Your task to perform on an android device: turn on the 24-hour format for clock Image 0: 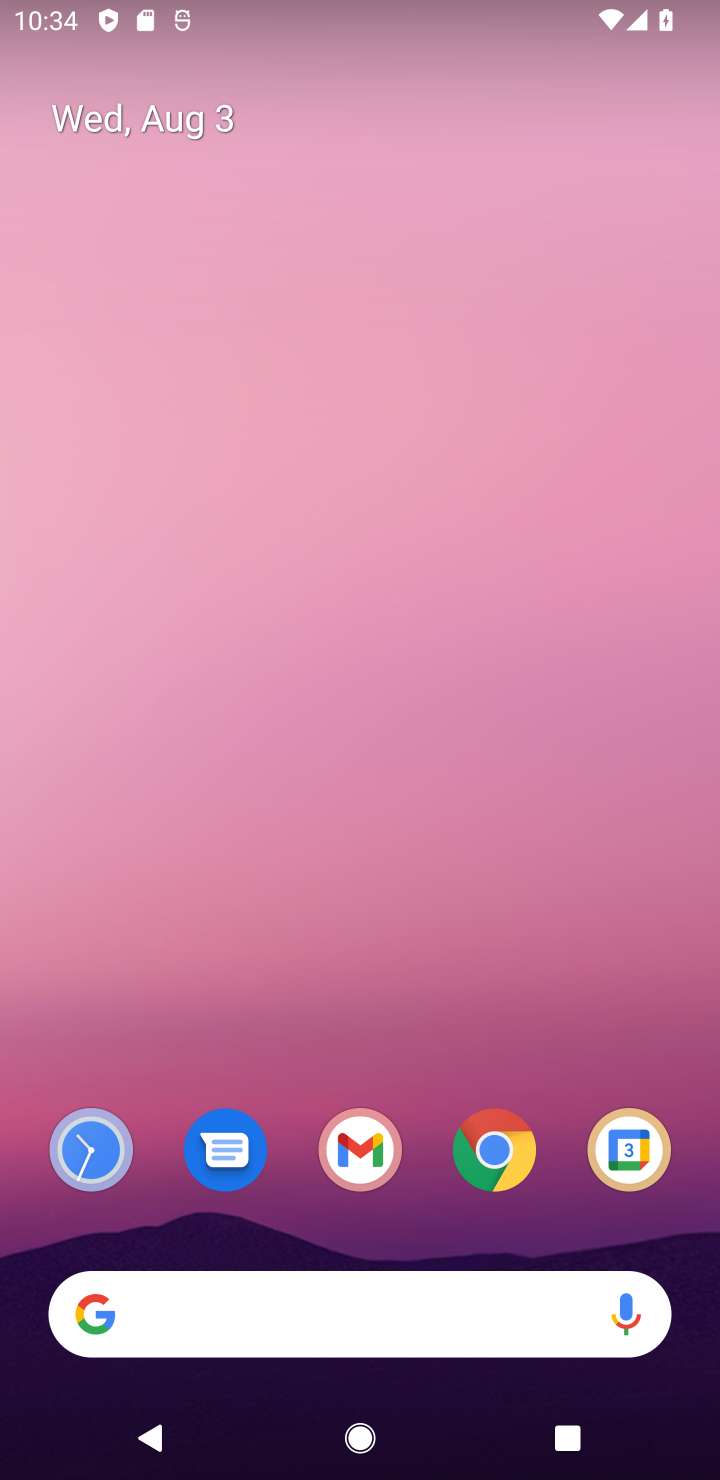
Step 0: press home button
Your task to perform on an android device: turn on the 24-hour format for clock Image 1: 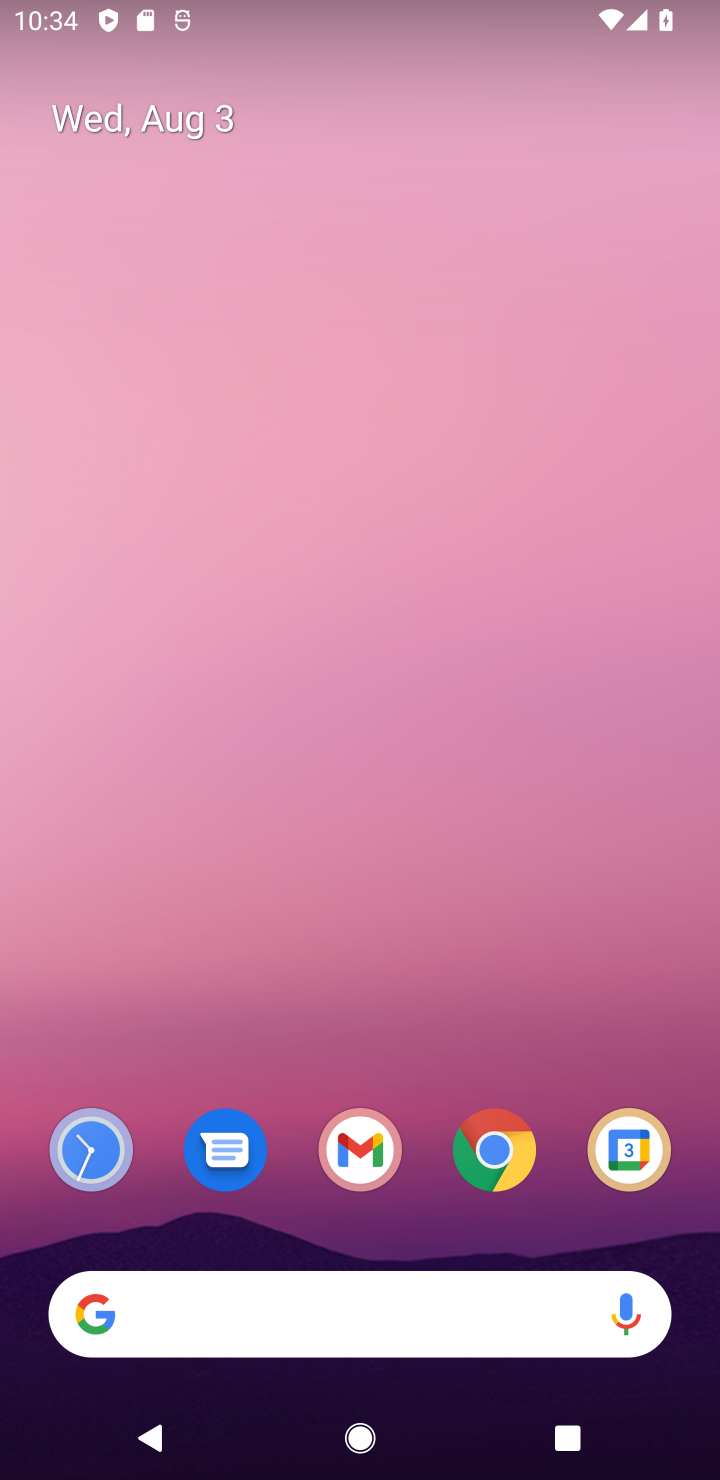
Step 1: drag from (536, 1039) to (567, 232)
Your task to perform on an android device: turn on the 24-hour format for clock Image 2: 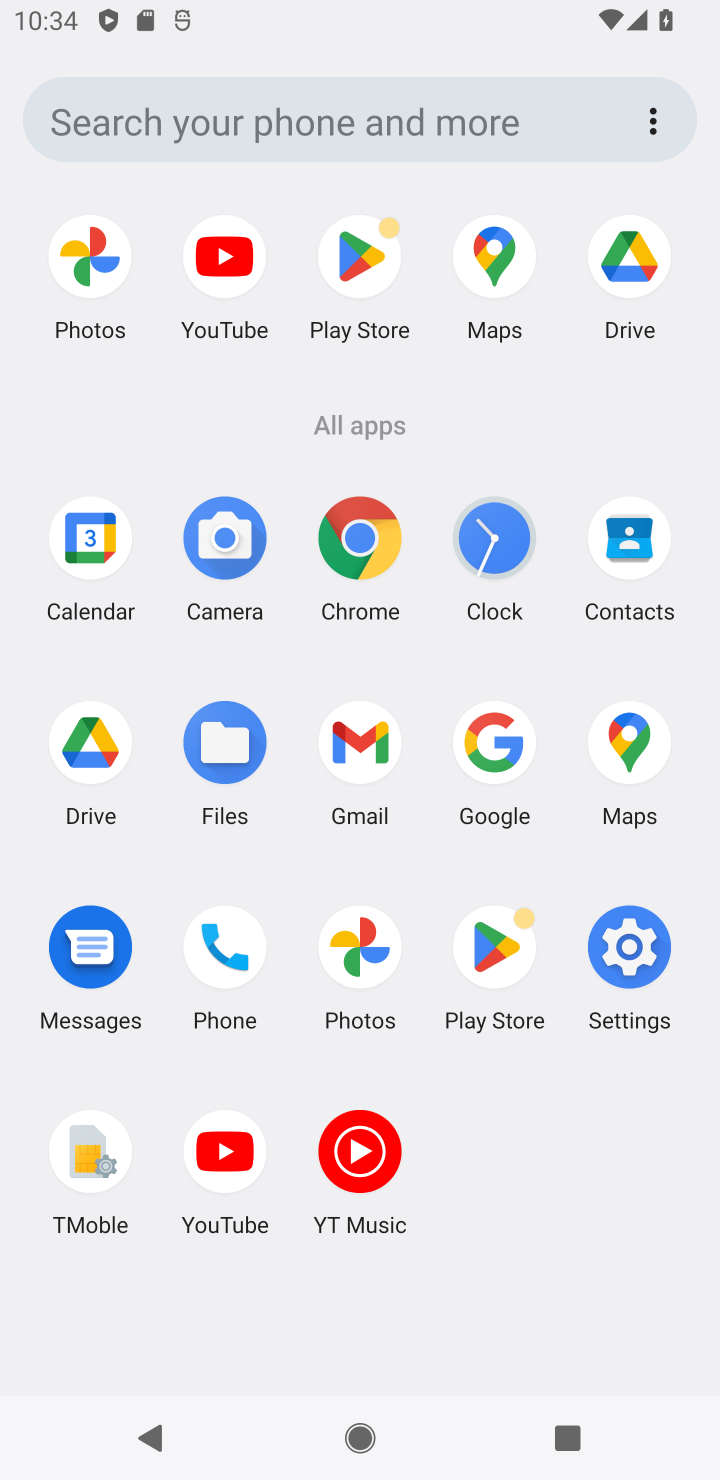
Step 2: click (493, 542)
Your task to perform on an android device: turn on the 24-hour format for clock Image 3: 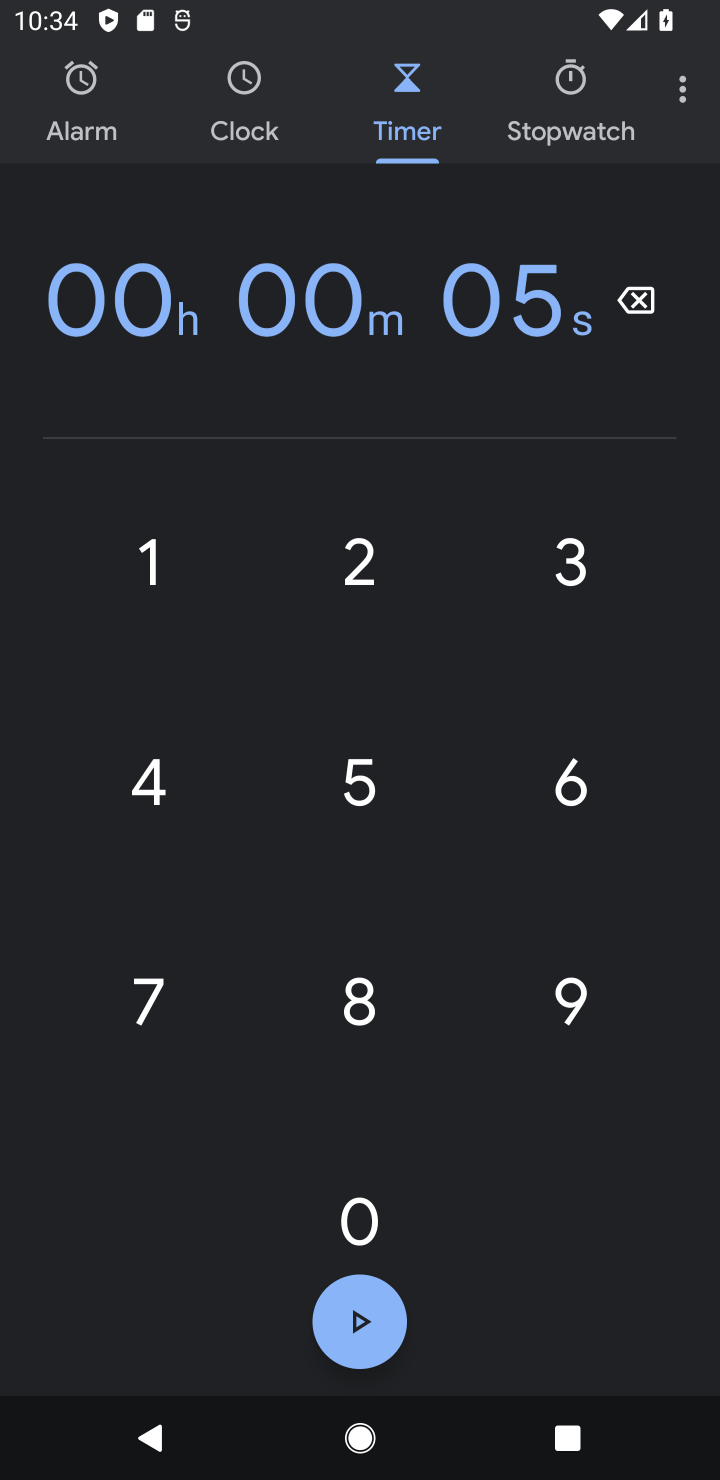
Step 3: click (683, 96)
Your task to perform on an android device: turn on the 24-hour format for clock Image 4: 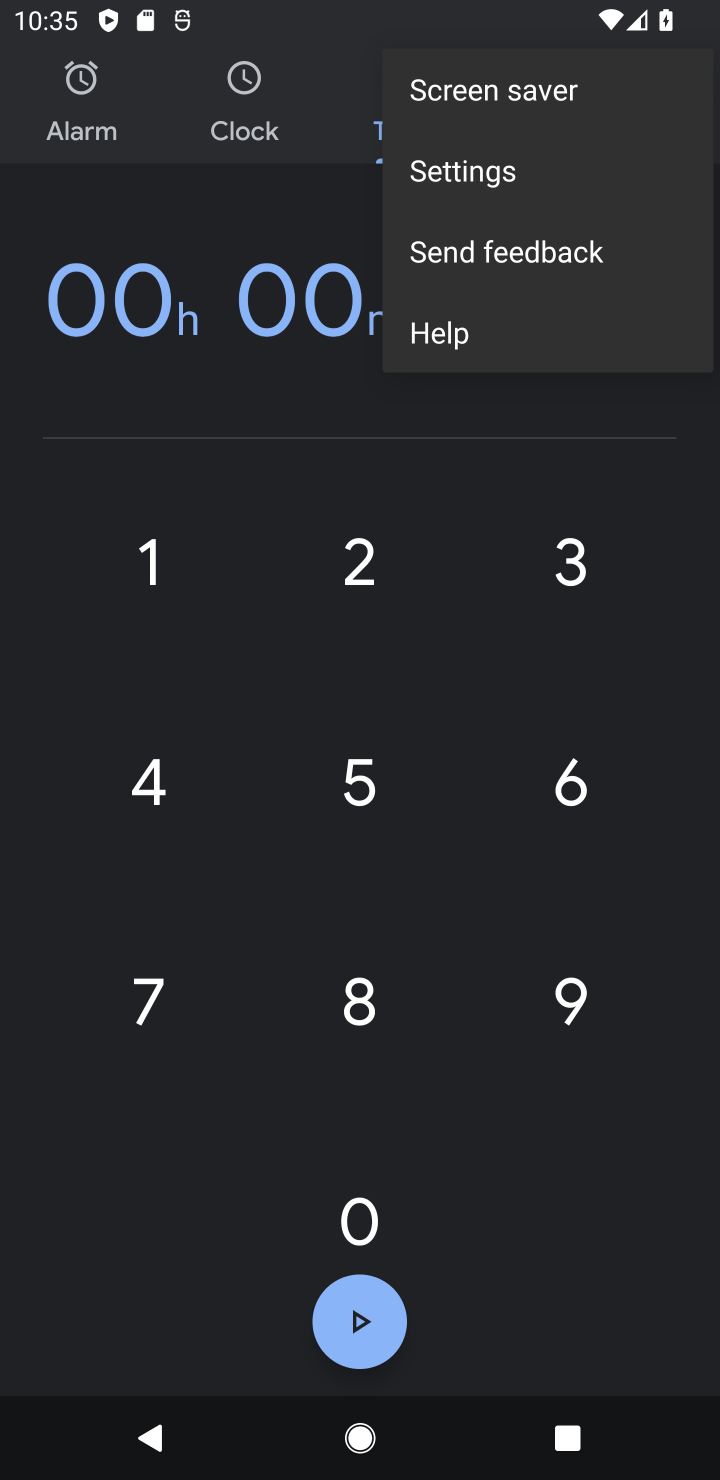
Step 4: click (499, 193)
Your task to perform on an android device: turn on the 24-hour format for clock Image 5: 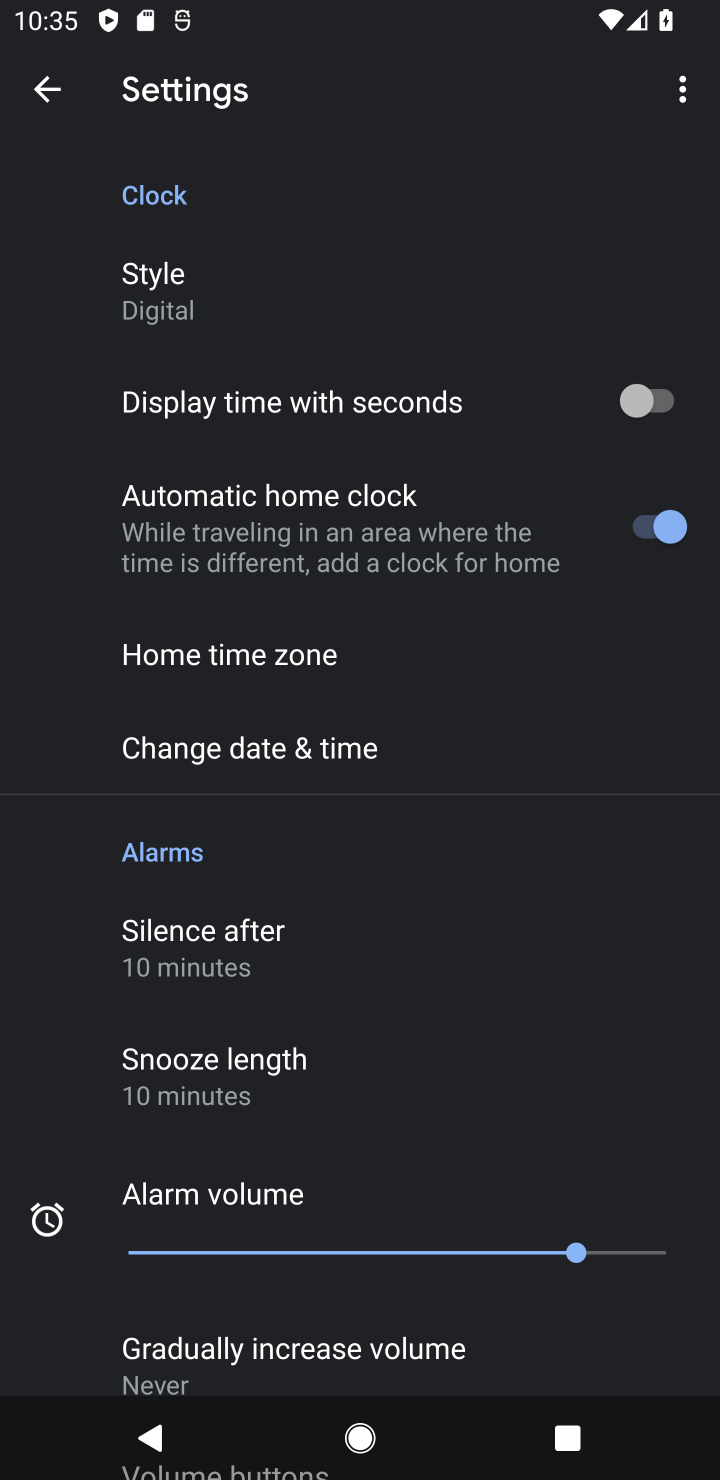
Step 5: drag from (547, 766) to (589, 575)
Your task to perform on an android device: turn on the 24-hour format for clock Image 6: 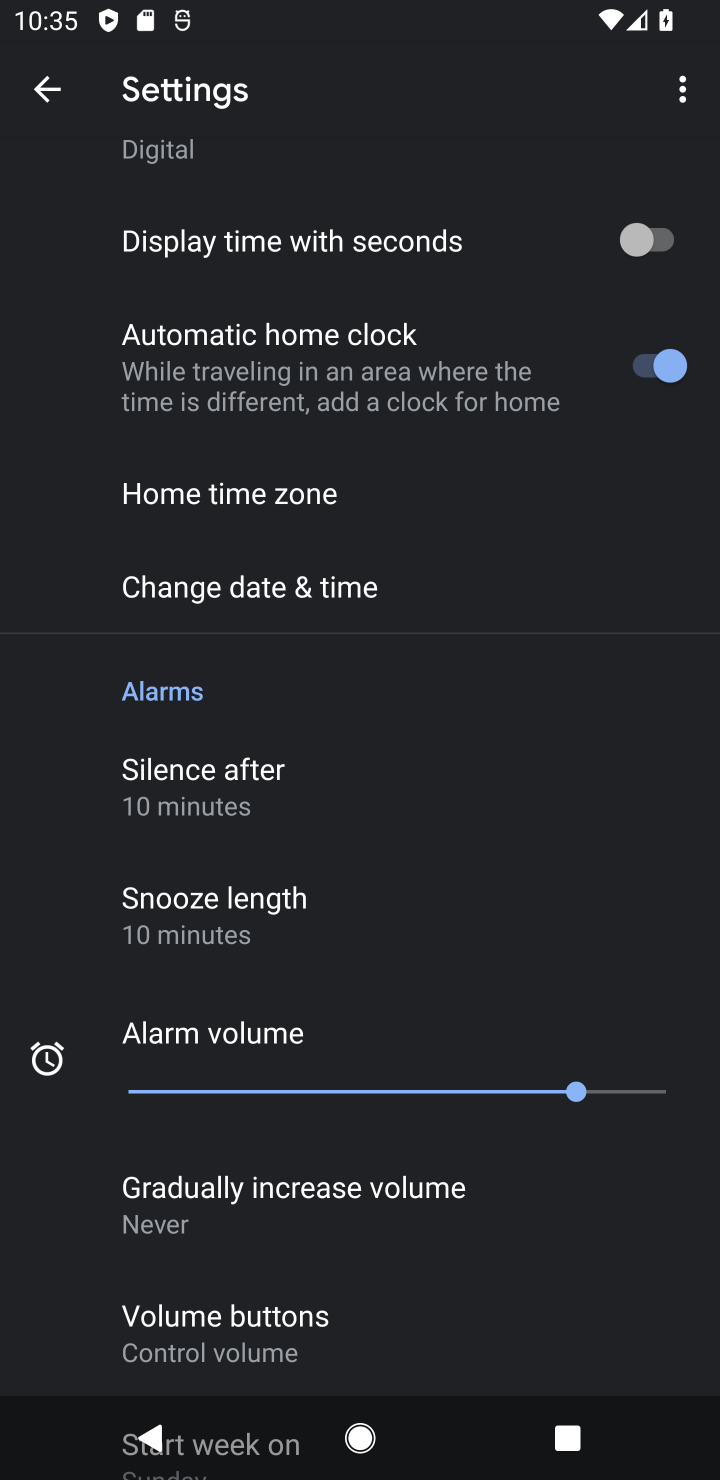
Step 6: drag from (578, 880) to (621, 608)
Your task to perform on an android device: turn on the 24-hour format for clock Image 7: 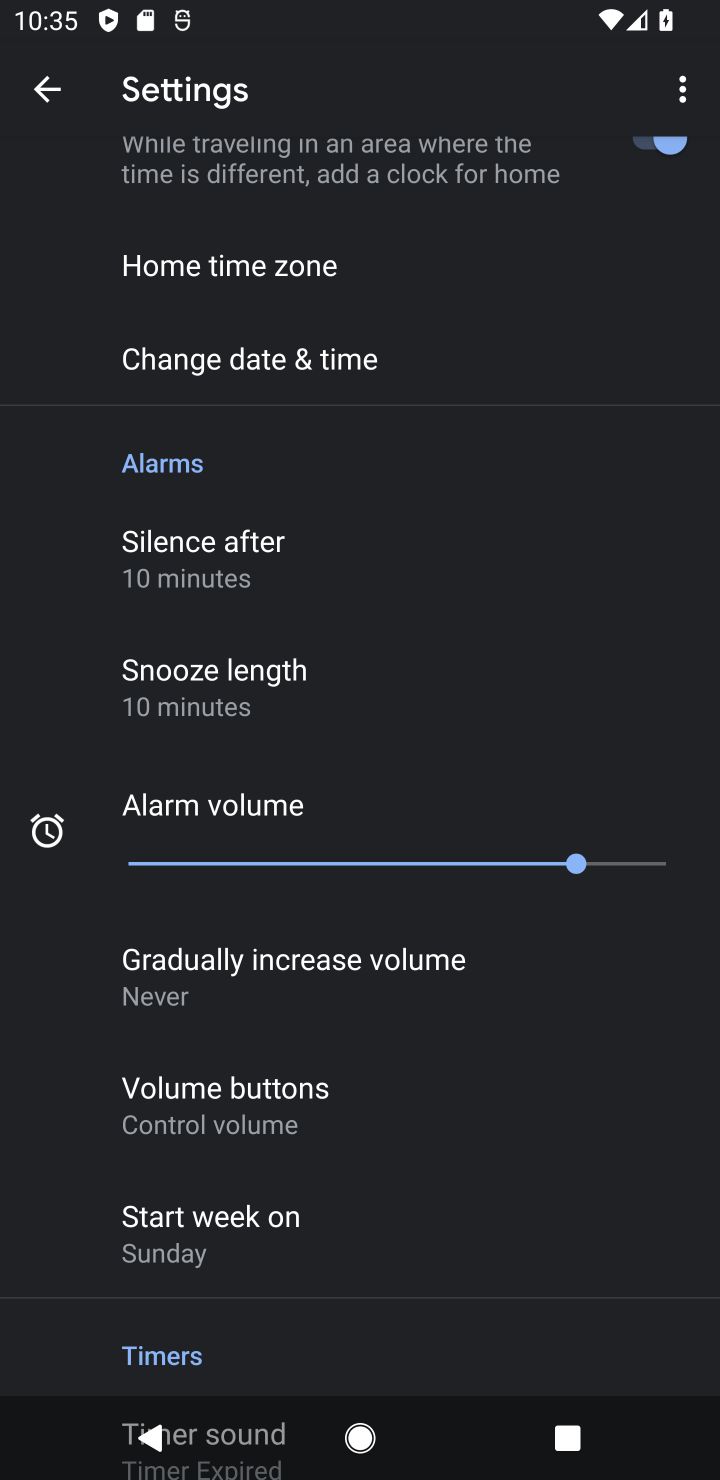
Step 7: drag from (632, 1076) to (640, 779)
Your task to perform on an android device: turn on the 24-hour format for clock Image 8: 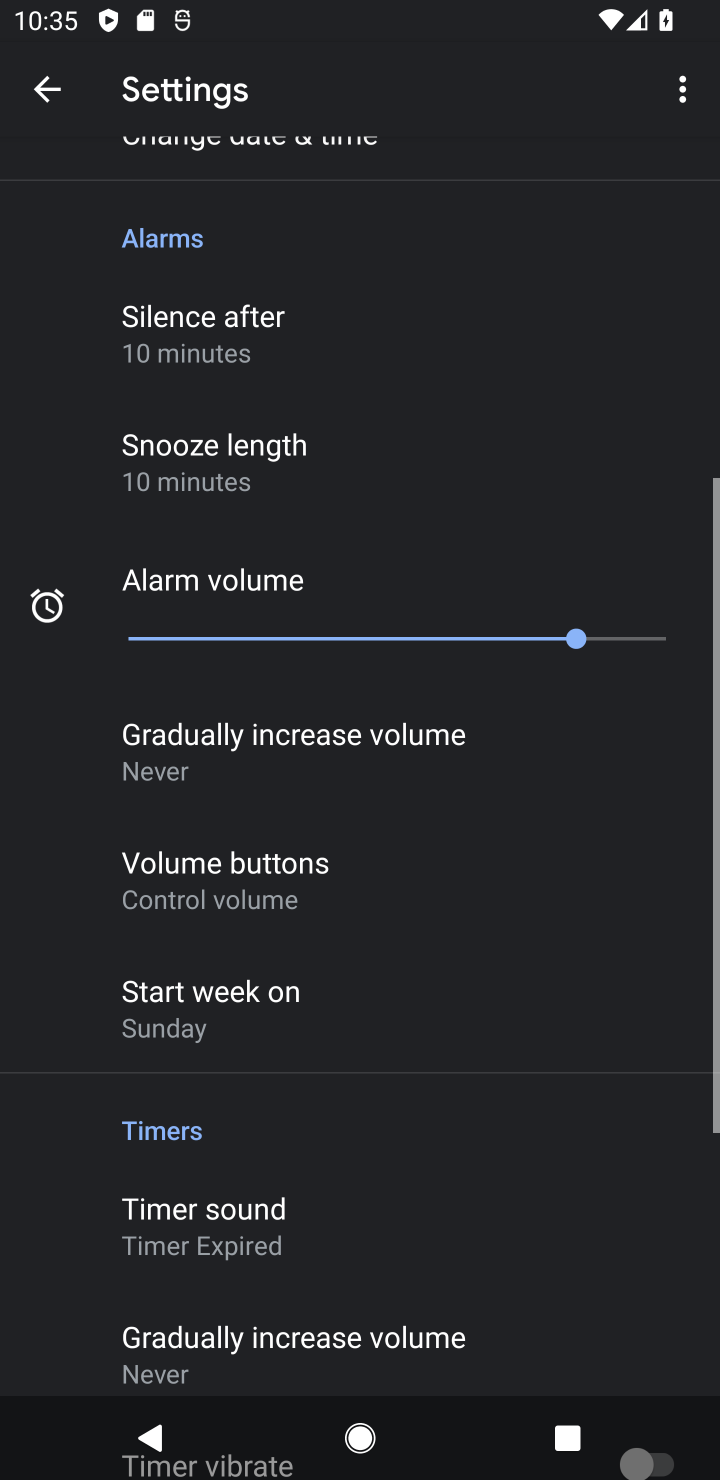
Step 8: drag from (602, 1111) to (602, 768)
Your task to perform on an android device: turn on the 24-hour format for clock Image 9: 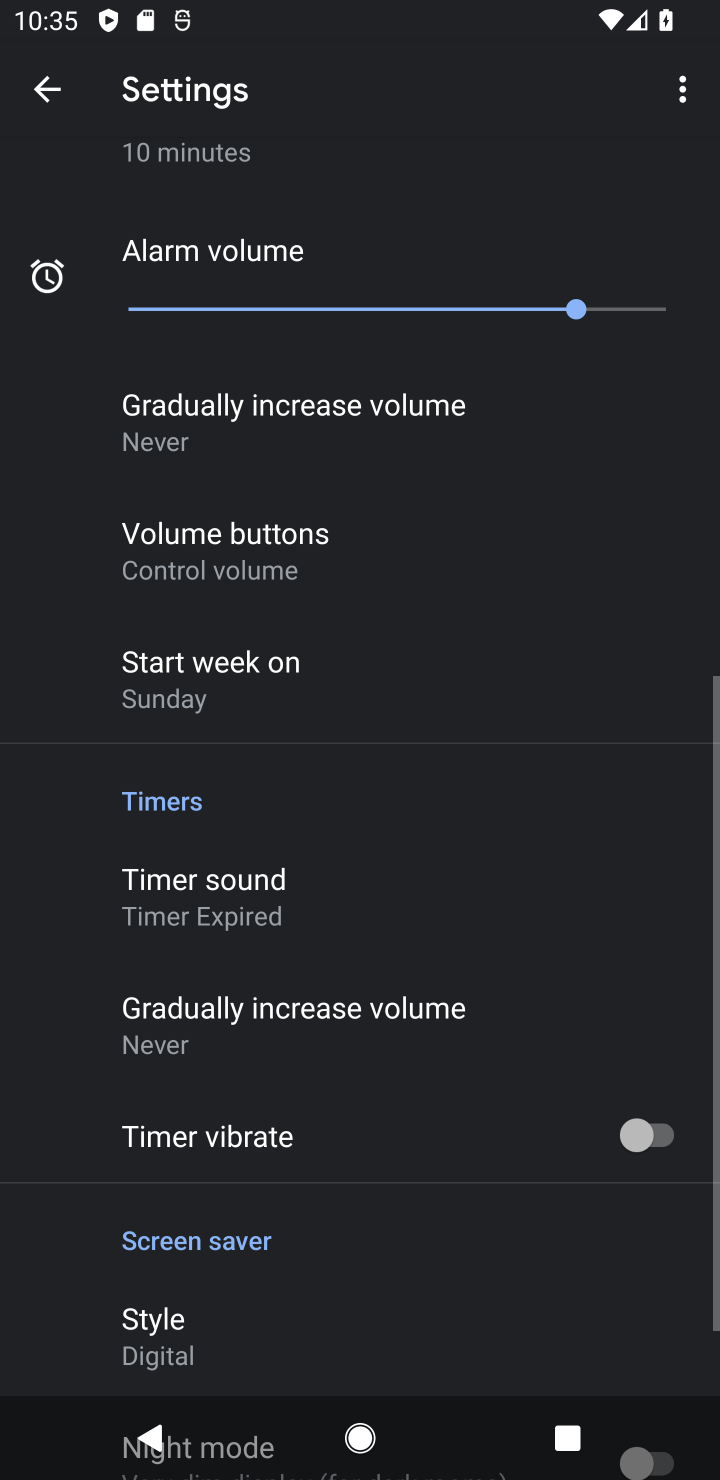
Step 9: drag from (485, 1190) to (533, 876)
Your task to perform on an android device: turn on the 24-hour format for clock Image 10: 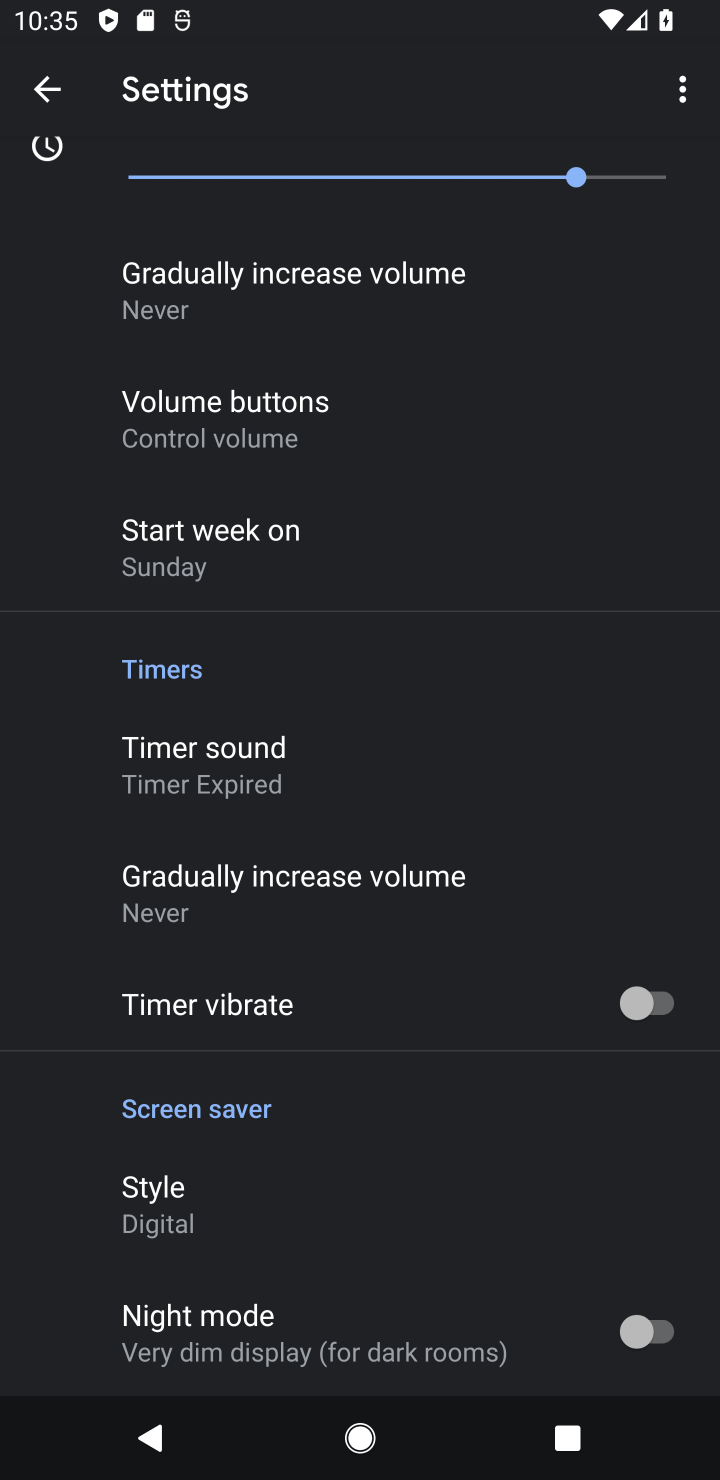
Step 10: drag from (553, 577) to (528, 871)
Your task to perform on an android device: turn on the 24-hour format for clock Image 11: 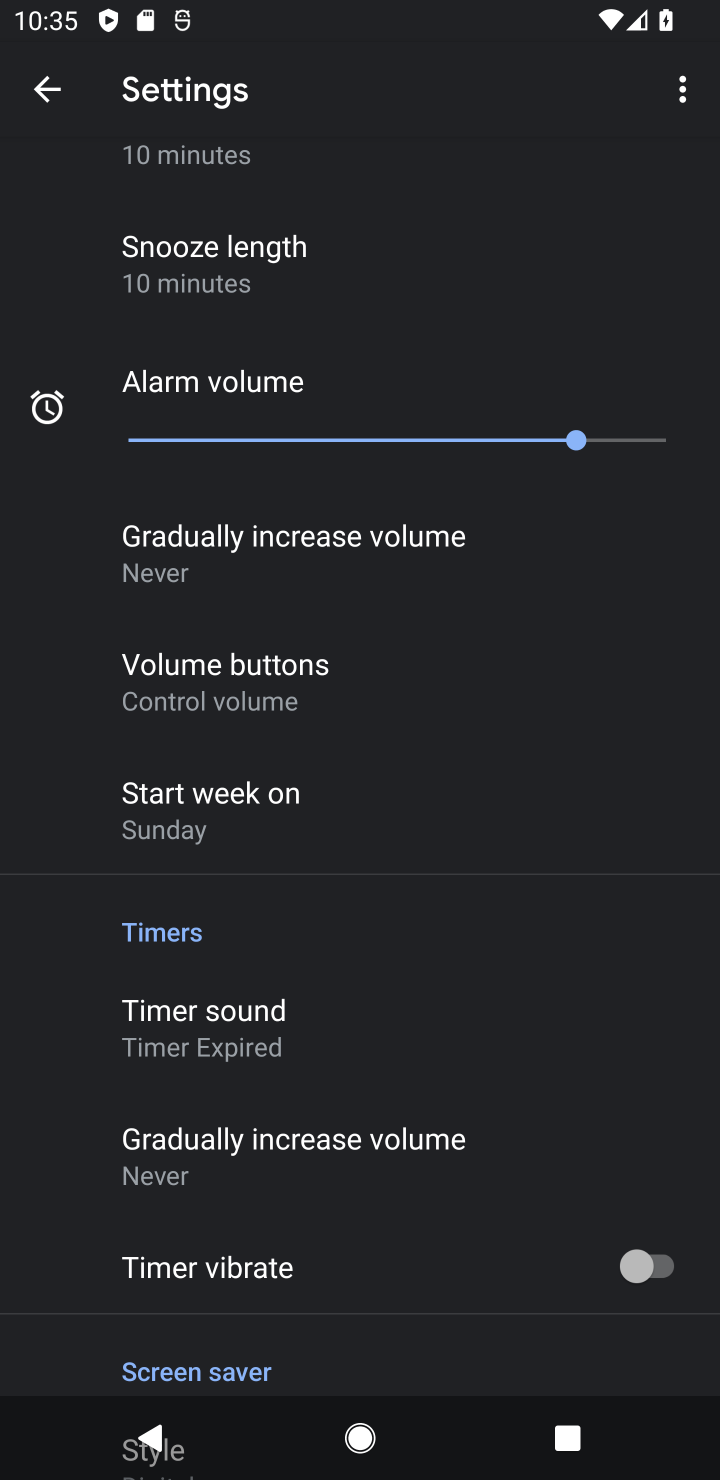
Step 11: drag from (517, 588) to (521, 798)
Your task to perform on an android device: turn on the 24-hour format for clock Image 12: 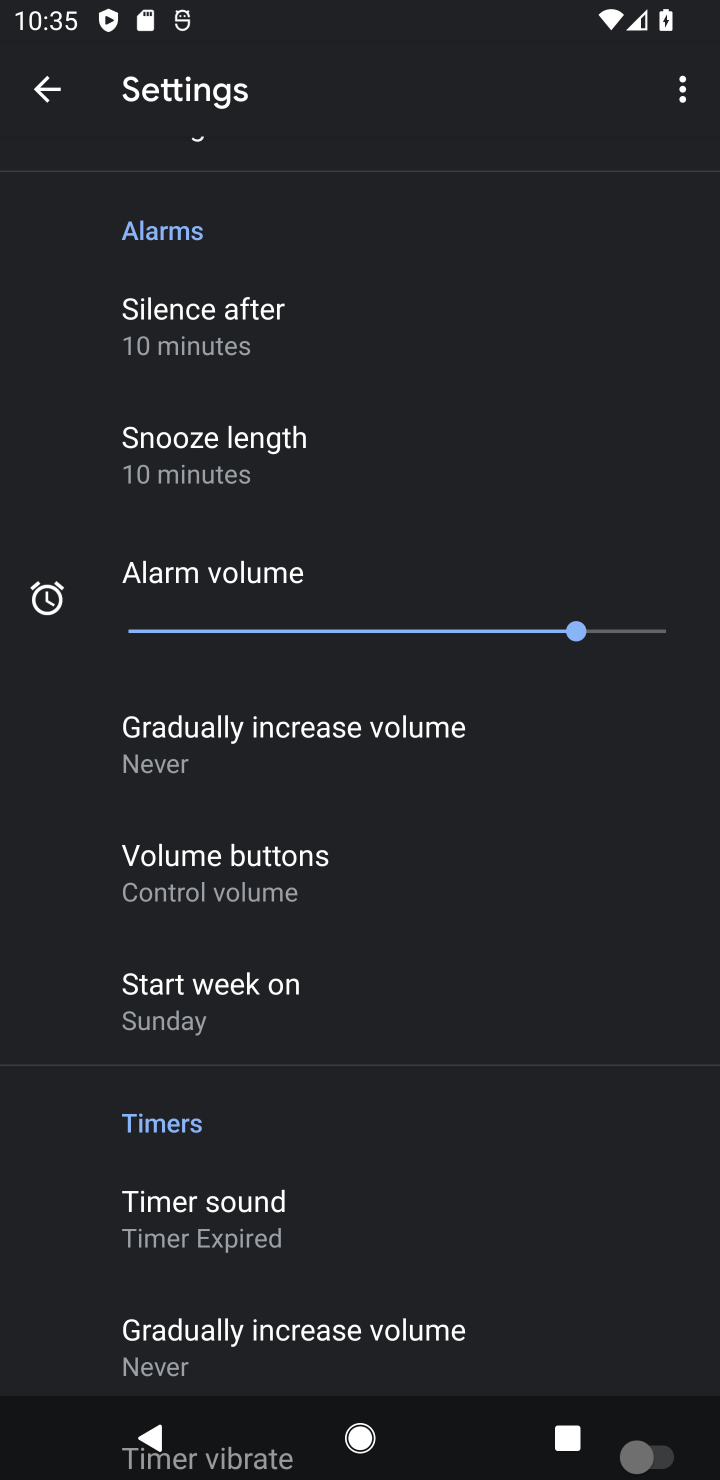
Step 12: drag from (519, 435) to (519, 769)
Your task to perform on an android device: turn on the 24-hour format for clock Image 13: 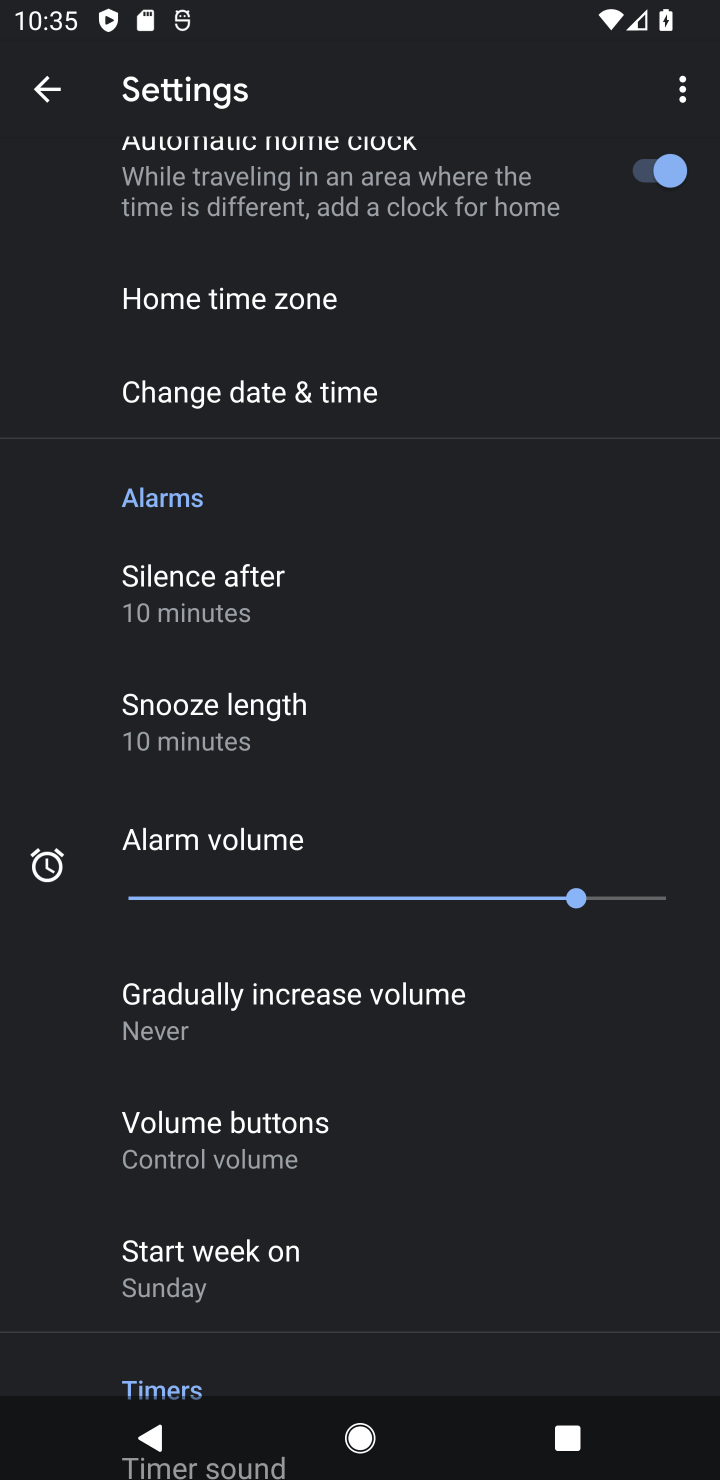
Step 13: click (480, 391)
Your task to perform on an android device: turn on the 24-hour format for clock Image 14: 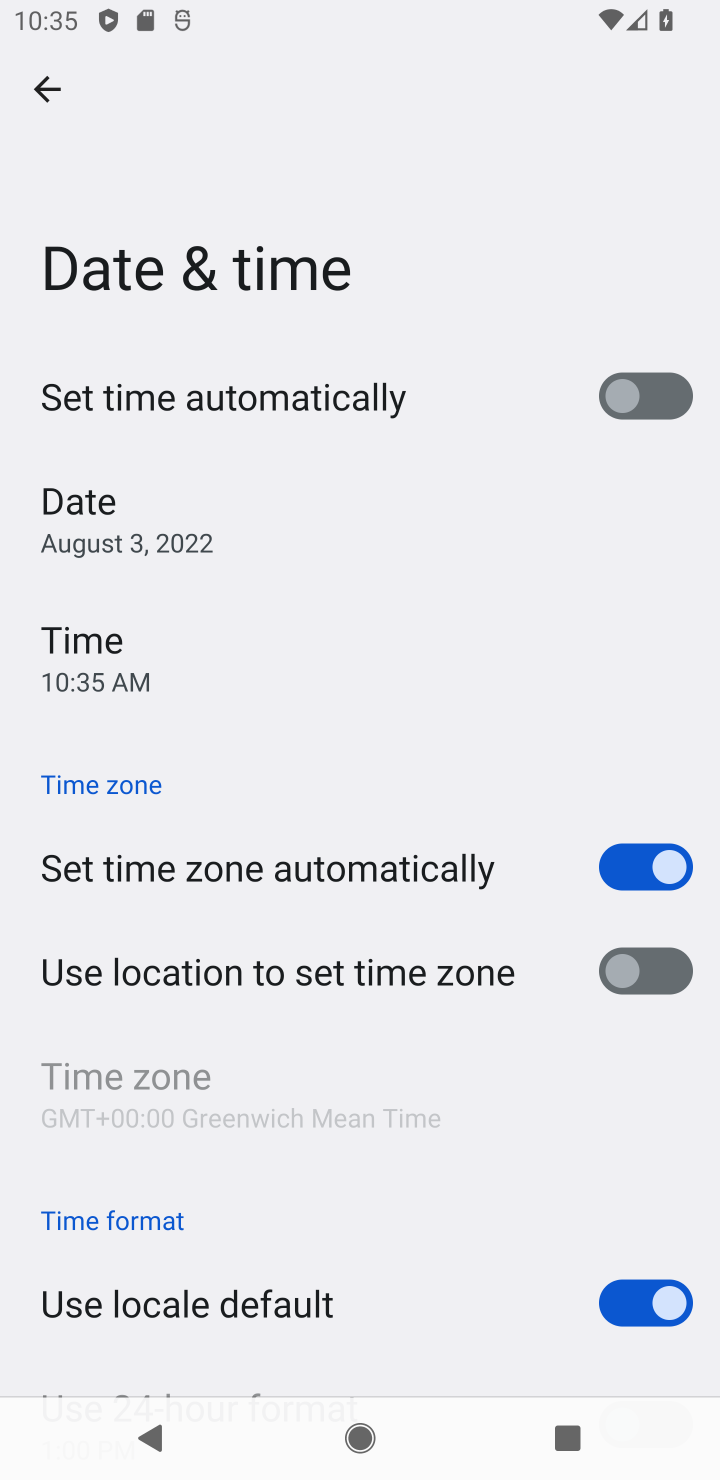
Step 14: drag from (513, 1050) to (522, 770)
Your task to perform on an android device: turn on the 24-hour format for clock Image 15: 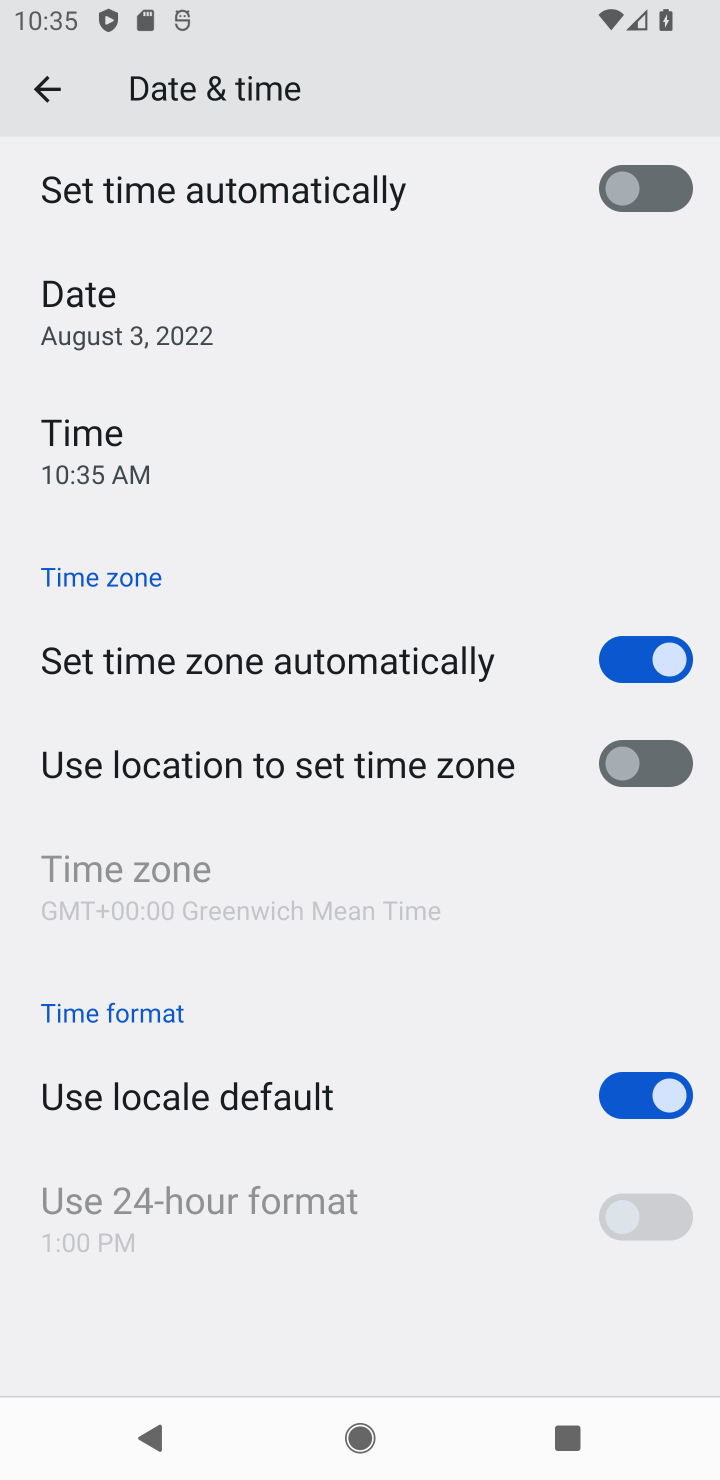
Step 15: click (640, 1086)
Your task to perform on an android device: turn on the 24-hour format for clock Image 16: 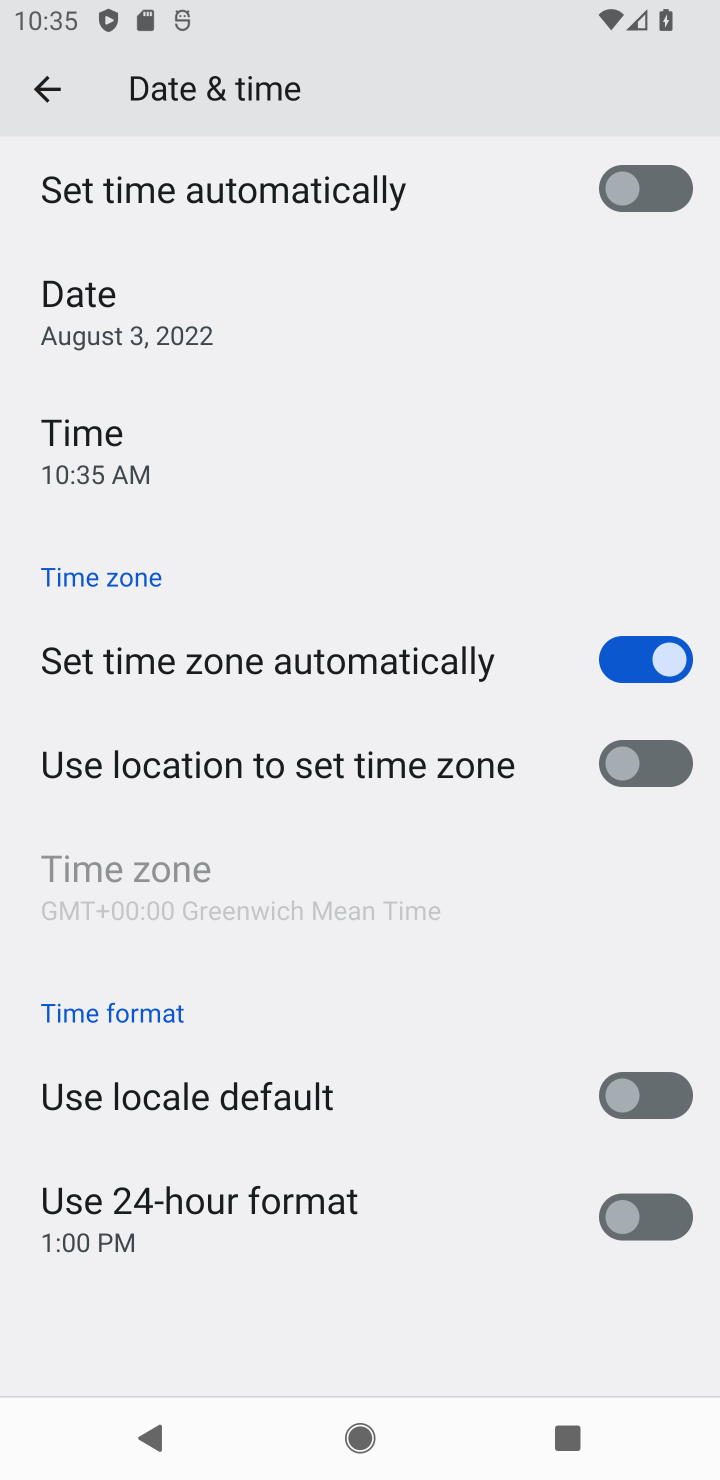
Step 16: click (617, 1205)
Your task to perform on an android device: turn on the 24-hour format for clock Image 17: 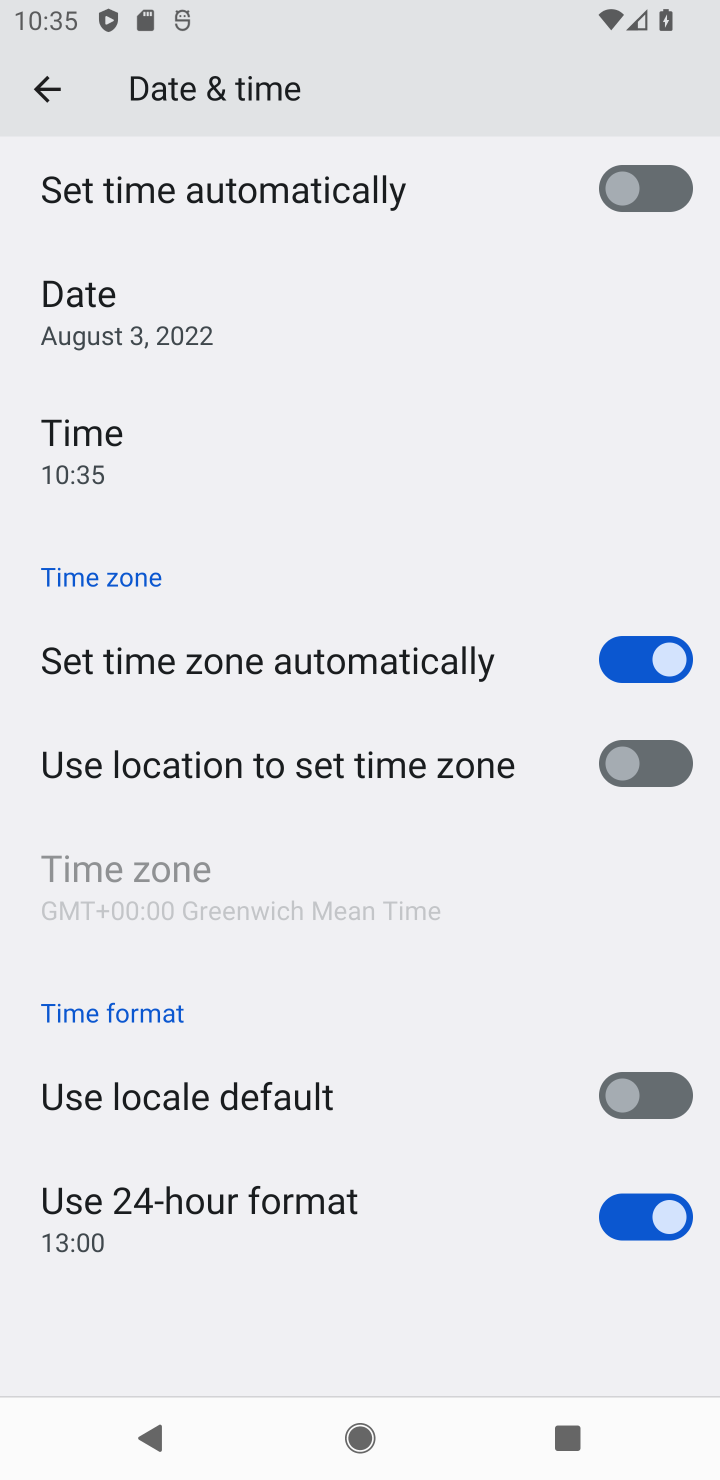
Step 17: task complete